Your task to perform on an android device: Open Youtube and go to the subscriptions tab Image 0: 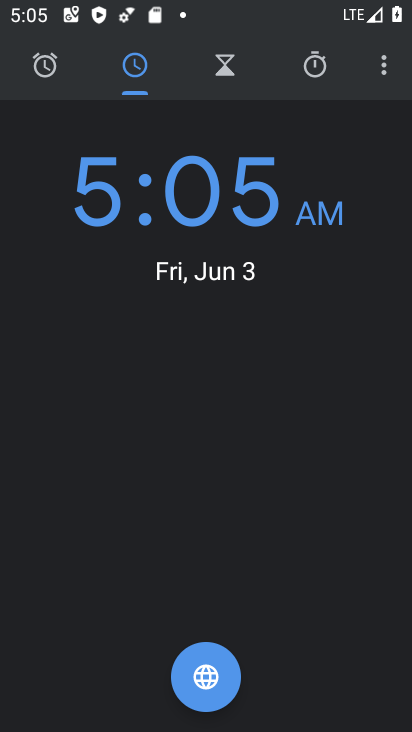
Step 0: press home button
Your task to perform on an android device: Open Youtube and go to the subscriptions tab Image 1: 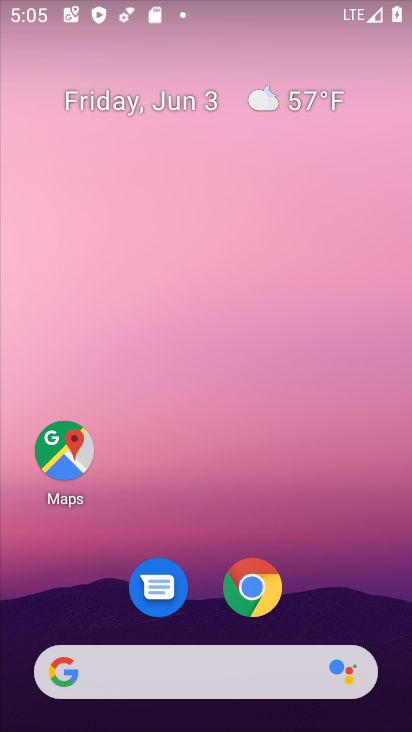
Step 1: drag from (208, 620) to (219, 292)
Your task to perform on an android device: Open Youtube and go to the subscriptions tab Image 2: 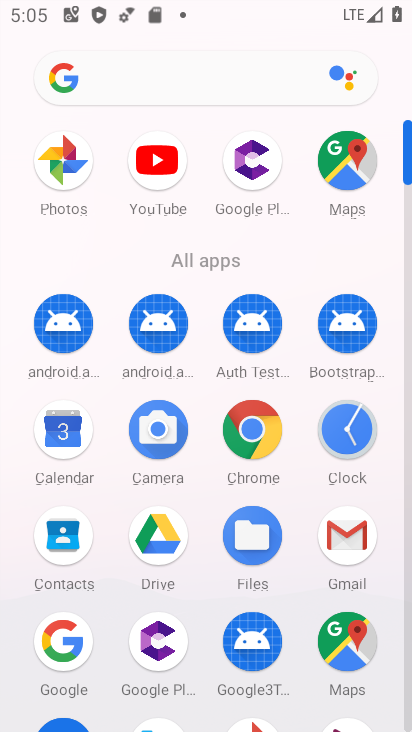
Step 2: click (137, 175)
Your task to perform on an android device: Open Youtube and go to the subscriptions tab Image 3: 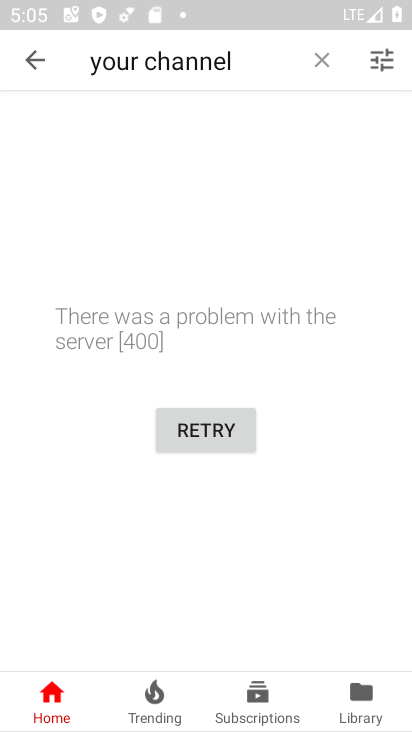
Step 3: click (260, 705)
Your task to perform on an android device: Open Youtube and go to the subscriptions tab Image 4: 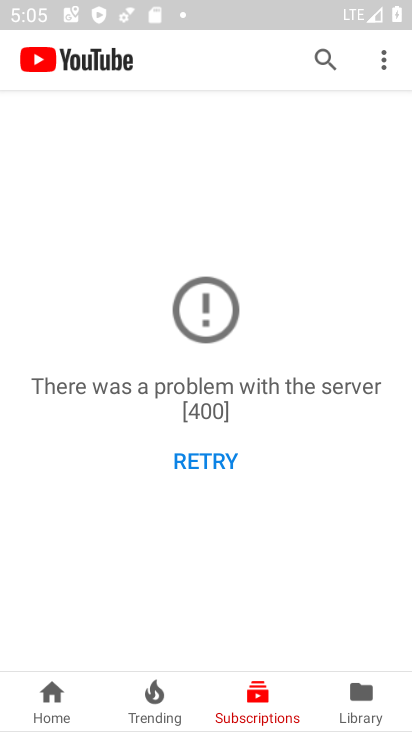
Step 4: task complete